Your task to perform on an android device: turn off wifi Image 0: 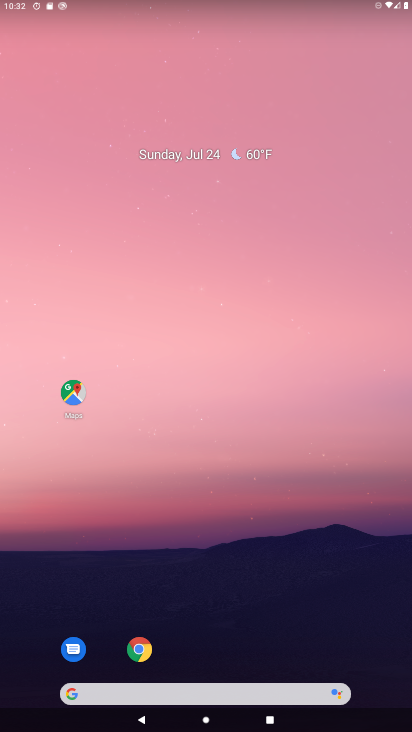
Step 0: drag from (318, 624) to (210, 53)
Your task to perform on an android device: turn off wifi Image 1: 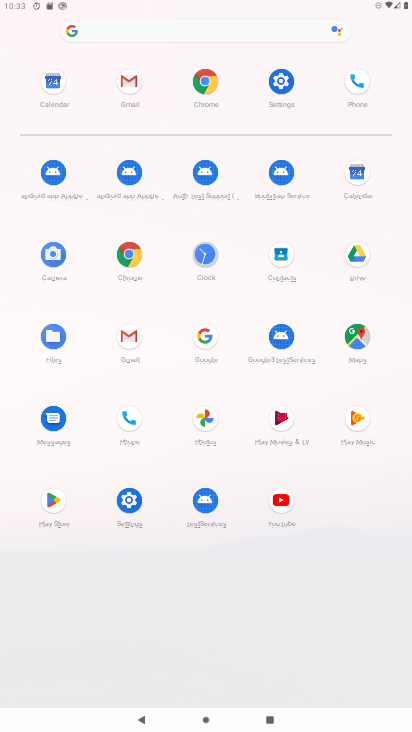
Step 1: click (288, 80)
Your task to perform on an android device: turn off wifi Image 2: 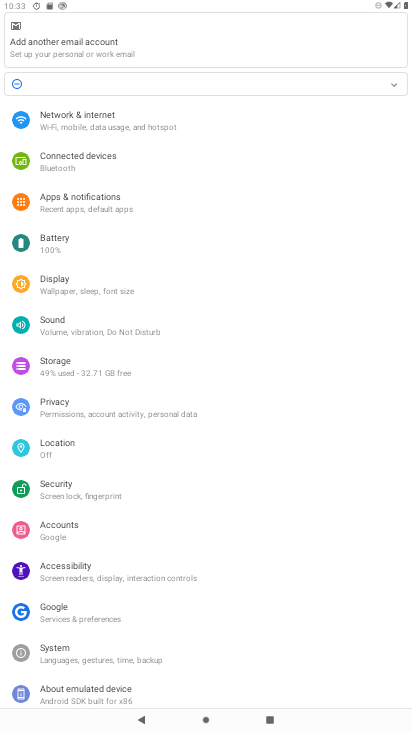
Step 2: click (102, 126)
Your task to perform on an android device: turn off wifi Image 3: 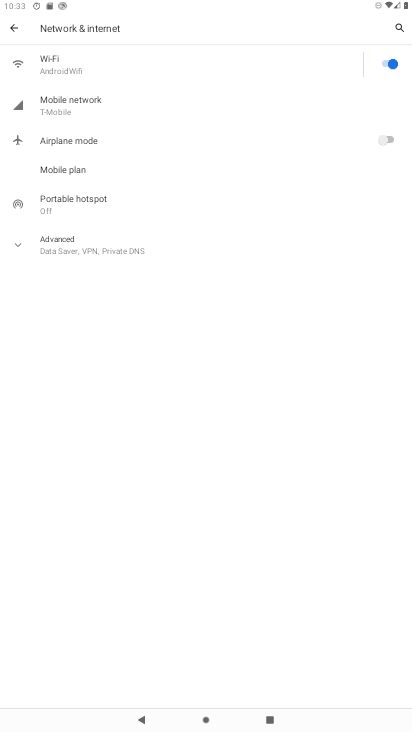
Step 3: click (387, 62)
Your task to perform on an android device: turn off wifi Image 4: 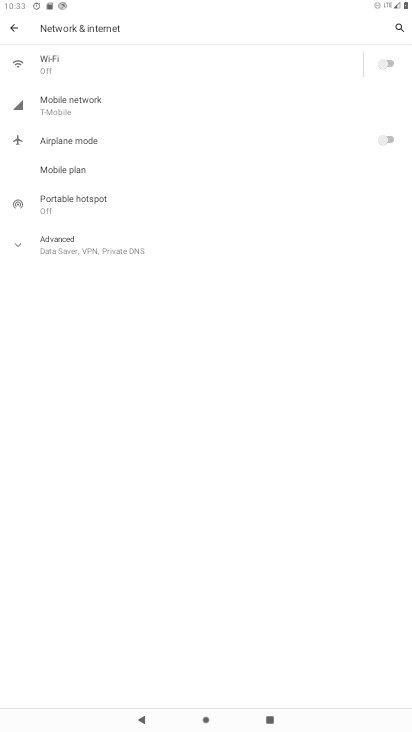
Step 4: task complete